Your task to perform on an android device: Search for Italian restaurants on Maps Image 0: 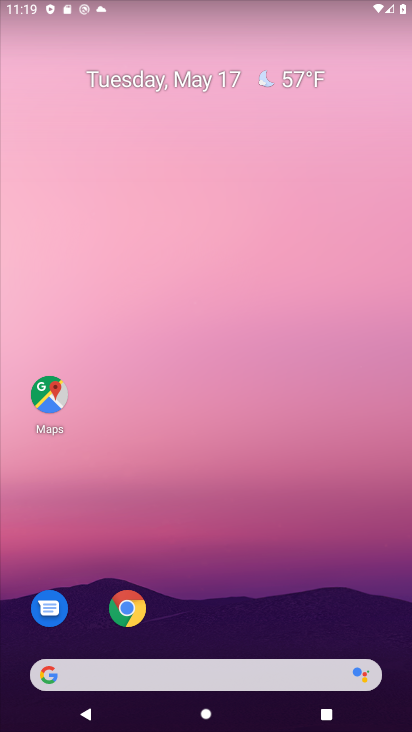
Step 0: click (43, 389)
Your task to perform on an android device: Search for Italian restaurants on Maps Image 1: 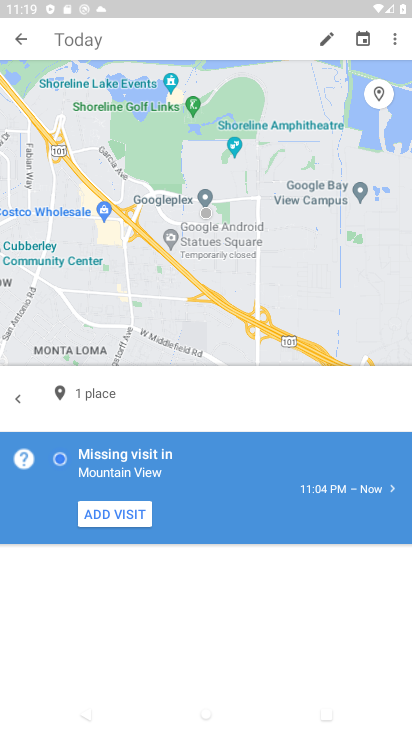
Step 1: click (32, 49)
Your task to perform on an android device: Search for Italian restaurants on Maps Image 2: 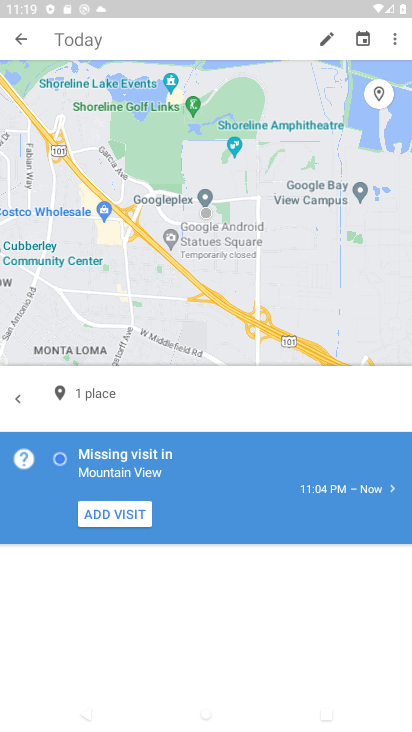
Step 2: click (18, 36)
Your task to perform on an android device: Search for Italian restaurants on Maps Image 3: 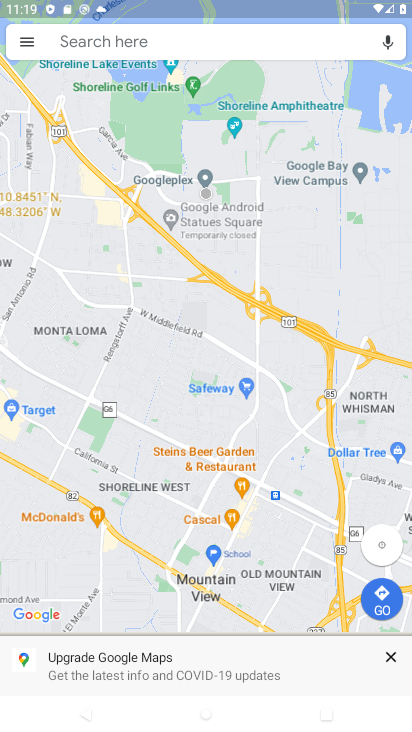
Step 3: click (207, 50)
Your task to perform on an android device: Search for Italian restaurants on Maps Image 4: 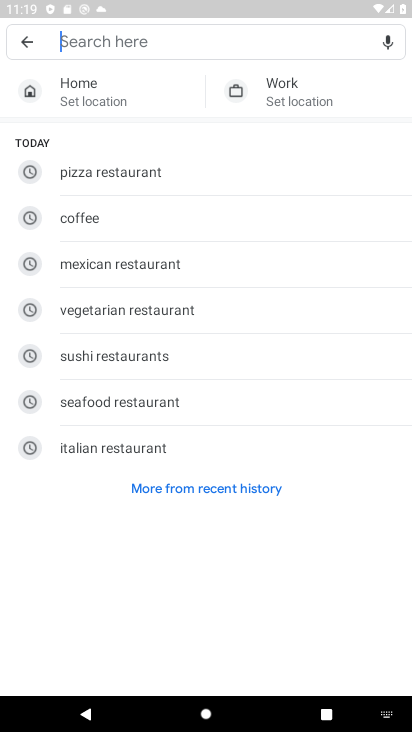
Step 4: type "italian restaurants"
Your task to perform on an android device: Search for Italian restaurants on Maps Image 5: 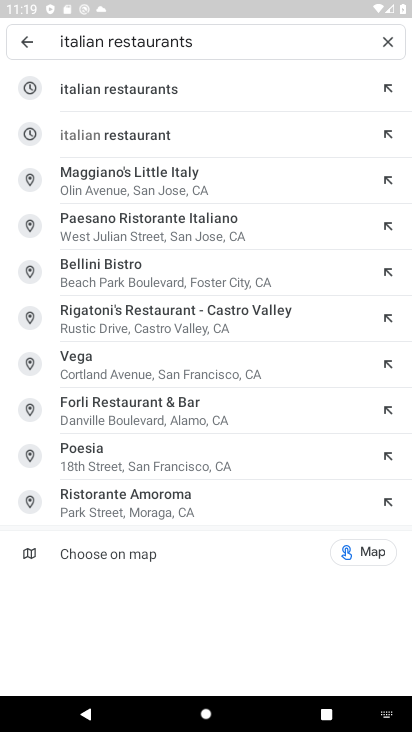
Step 5: click (148, 85)
Your task to perform on an android device: Search for Italian restaurants on Maps Image 6: 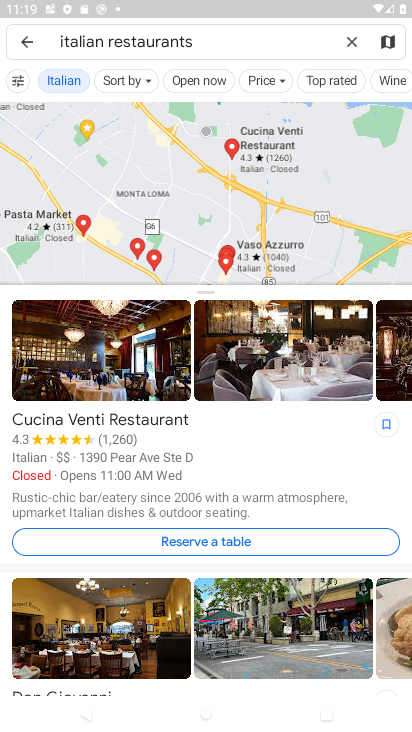
Step 6: task complete